Your task to perform on an android device: choose inbox layout in the gmail app Image 0: 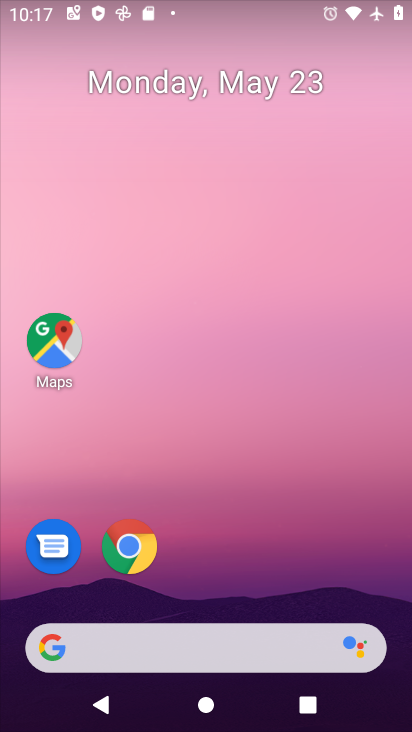
Step 0: drag from (397, 602) to (338, 47)
Your task to perform on an android device: choose inbox layout in the gmail app Image 1: 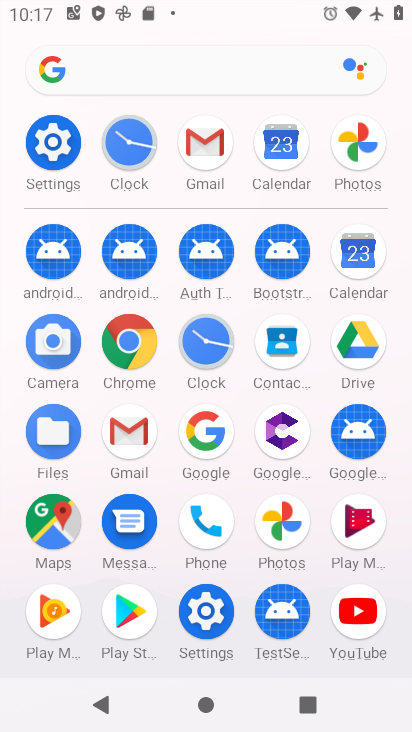
Step 1: click (123, 431)
Your task to perform on an android device: choose inbox layout in the gmail app Image 2: 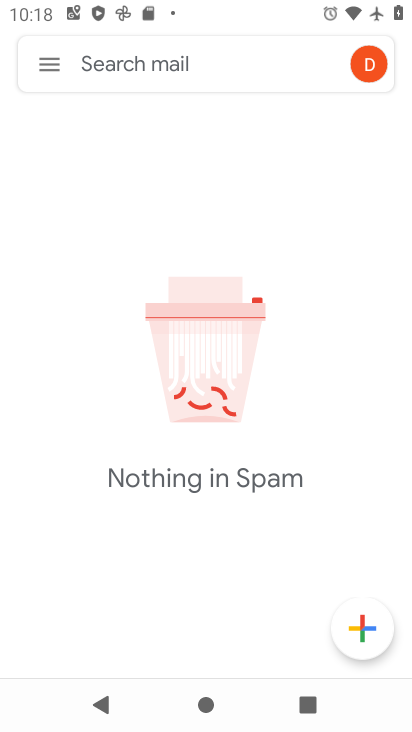
Step 2: click (49, 60)
Your task to perform on an android device: choose inbox layout in the gmail app Image 3: 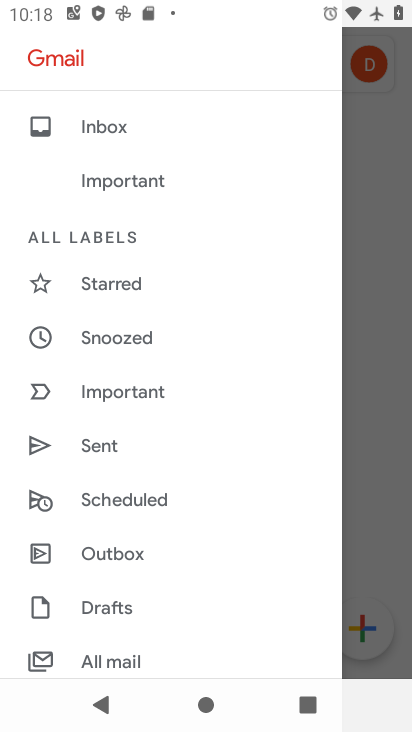
Step 3: drag from (214, 521) to (234, 117)
Your task to perform on an android device: choose inbox layout in the gmail app Image 4: 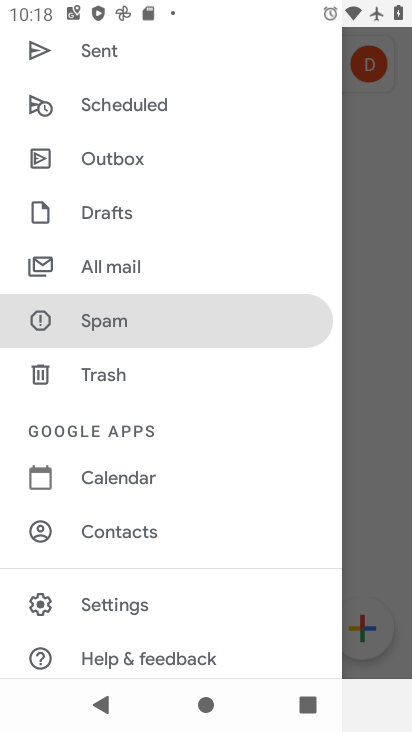
Step 4: drag from (180, 594) to (206, 111)
Your task to perform on an android device: choose inbox layout in the gmail app Image 5: 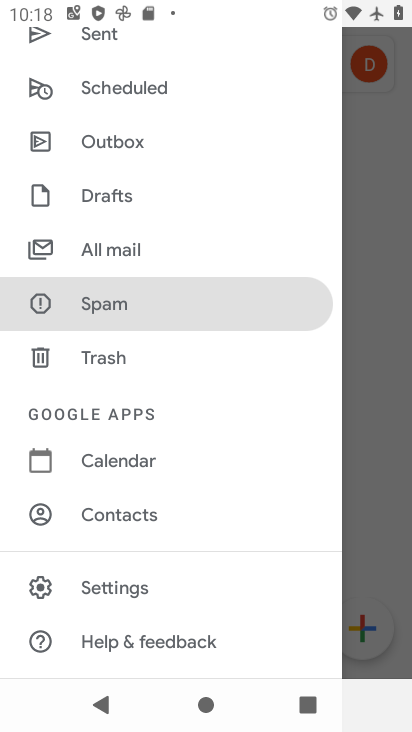
Step 5: click (120, 583)
Your task to perform on an android device: choose inbox layout in the gmail app Image 6: 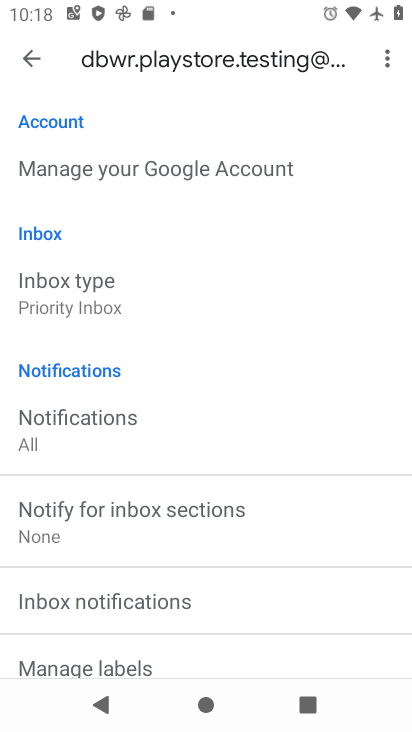
Step 6: click (85, 302)
Your task to perform on an android device: choose inbox layout in the gmail app Image 7: 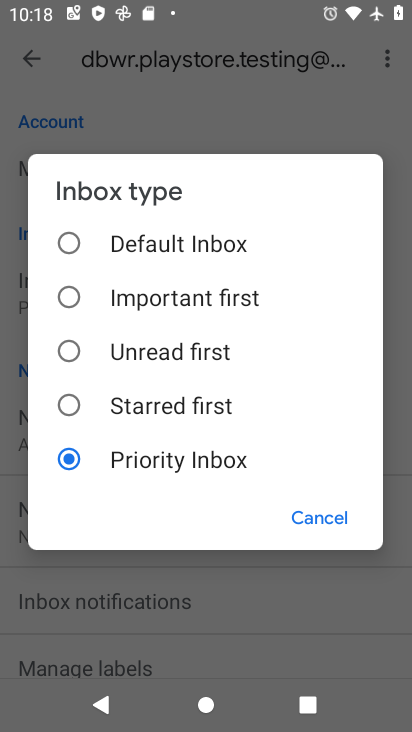
Step 7: click (61, 238)
Your task to perform on an android device: choose inbox layout in the gmail app Image 8: 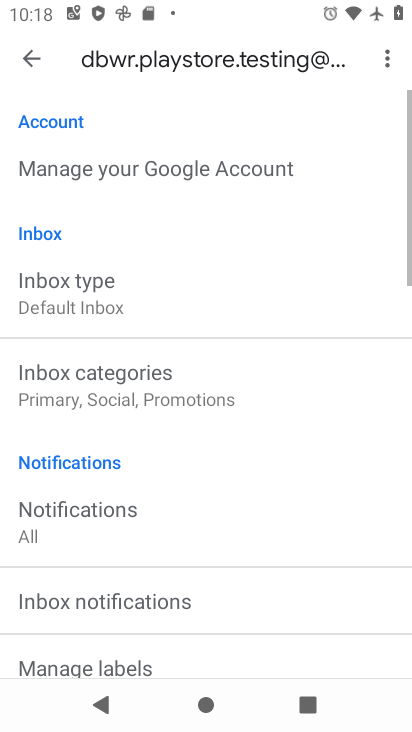
Step 8: task complete